Your task to perform on an android device: check android version Image 0: 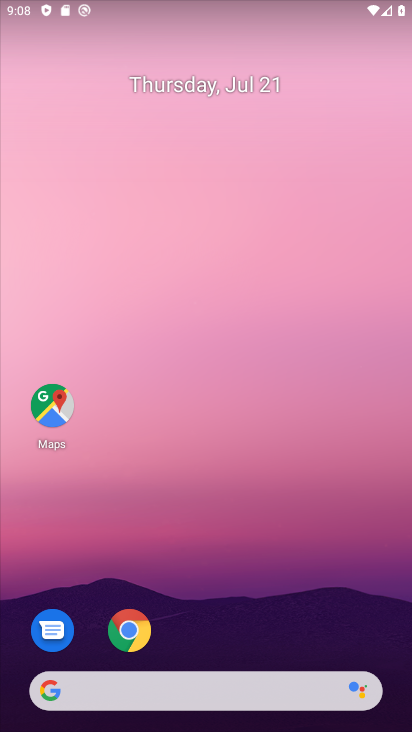
Step 0: drag from (254, 729) to (186, 121)
Your task to perform on an android device: check android version Image 1: 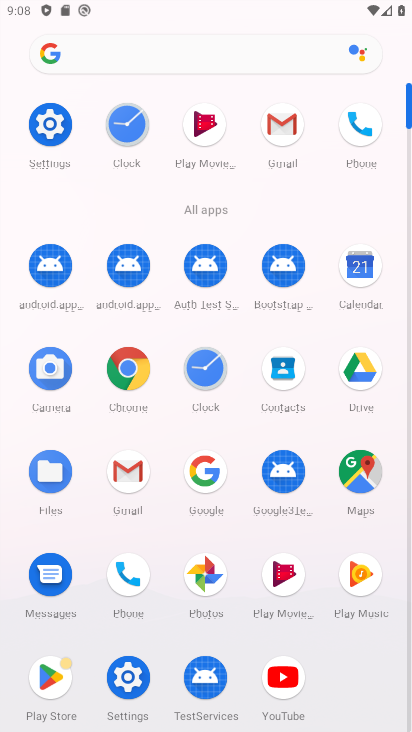
Step 1: click (50, 128)
Your task to perform on an android device: check android version Image 2: 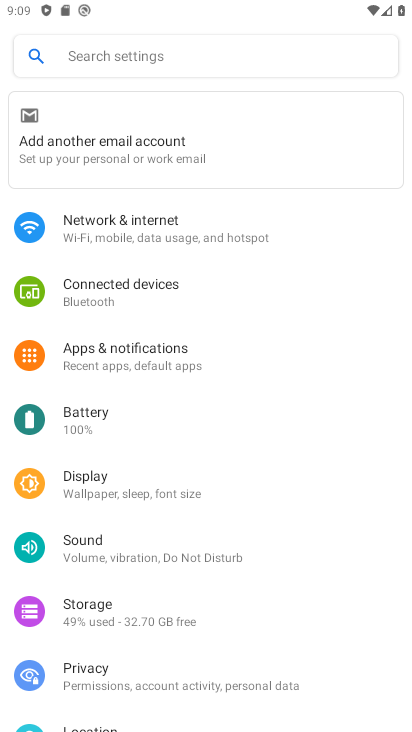
Step 2: drag from (128, 704) to (133, 210)
Your task to perform on an android device: check android version Image 3: 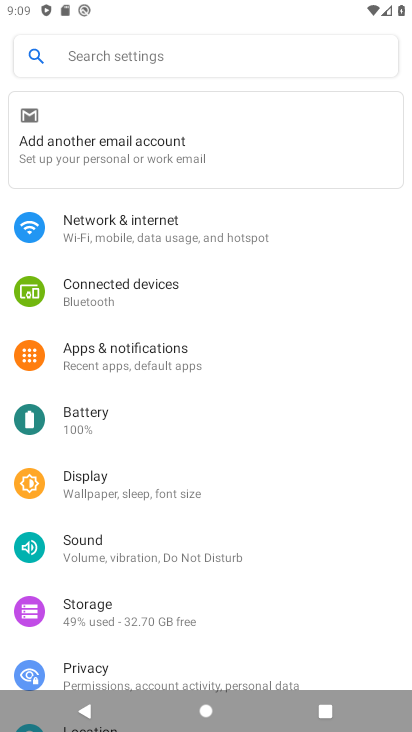
Step 3: drag from (146, 596) to (107, 261)
Your task to perform on an android device: check android version Image 4: 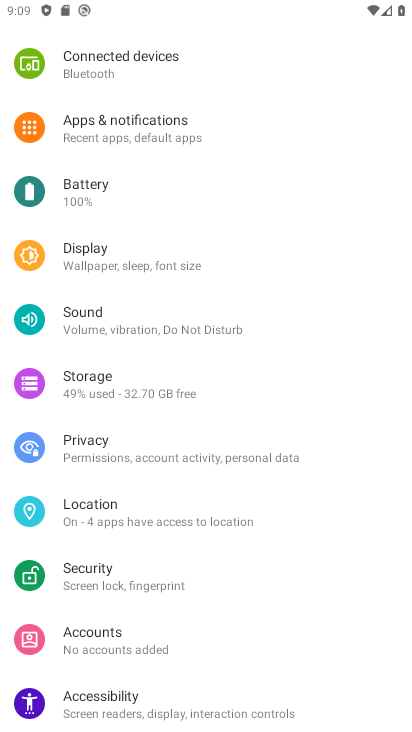
Step 4: drag from (145, 699) to (144, 428)
Your task to perform on an android device: check android version Image 5: 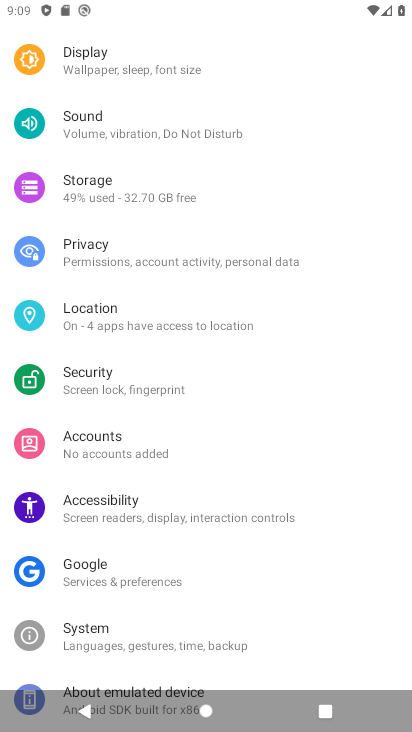
Step 5: drag from (123, 675) to (129, 398)
Your task to perform on an android device: check android version Image 6: 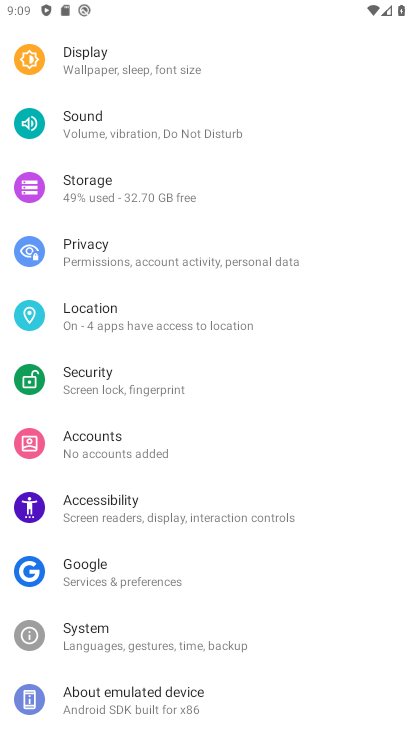
Step 6: drag from (100, 701) to (87, 427)
Your task to perform on an android device: check android version Image 7: 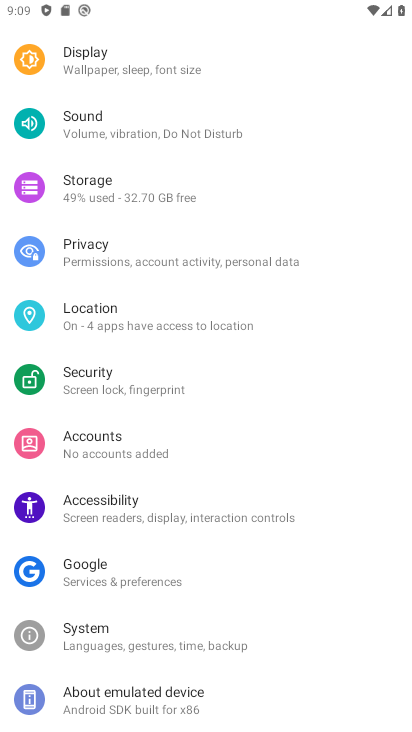
Step 7: click (109, 697)
Your task to perform on an android device: check android version Image 8: 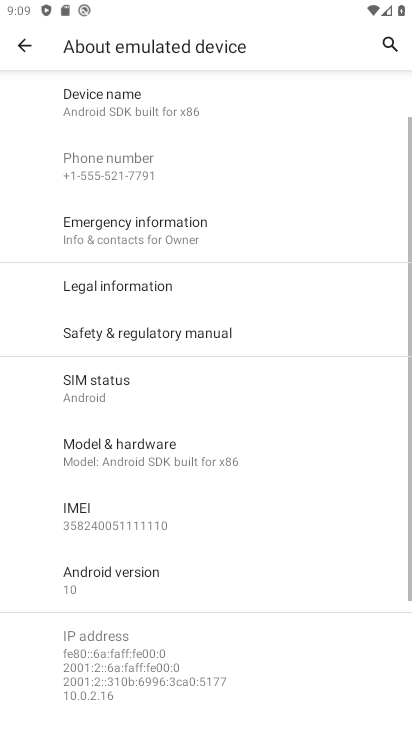
Step 8: task complete